Your task to perform on an android device: Search for Mexican restaurants on Maps Image 0: 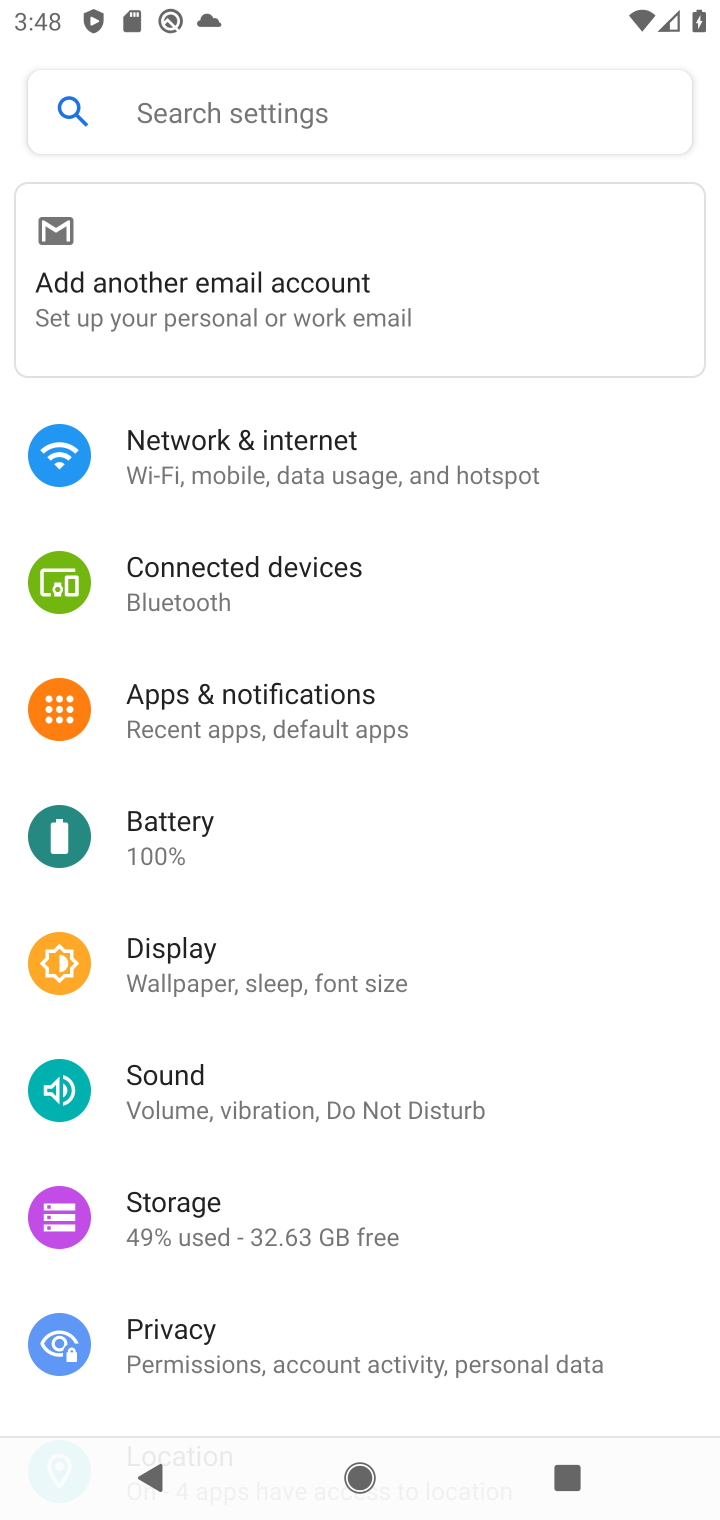
Step 0: press home button
Your task to perform on an android device: Search for Mexican restaurants on Maps Image 1: 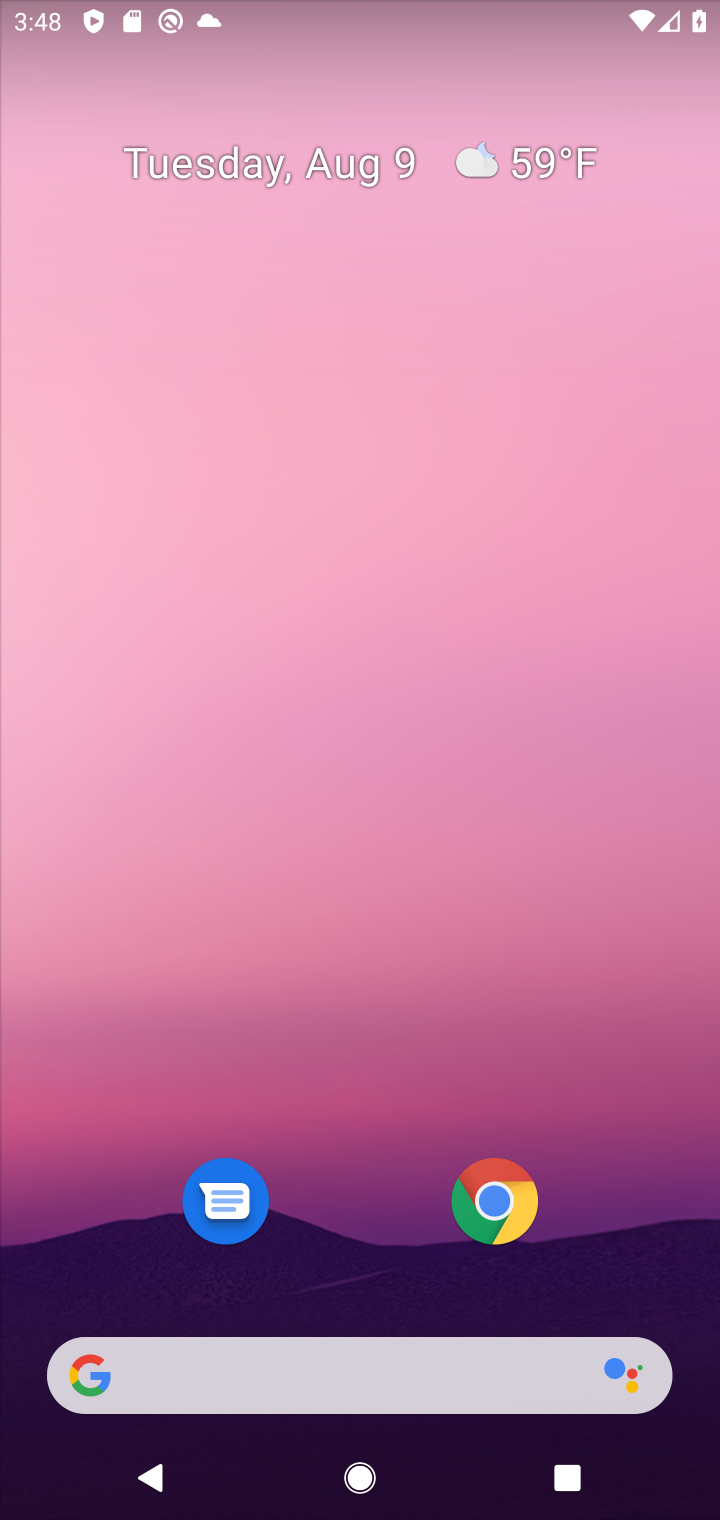
Step 1: drag from (350, 1195) to (516, 641)
Your task to perform on an android device: Search for Mexican restaurants on Maps Image 2: 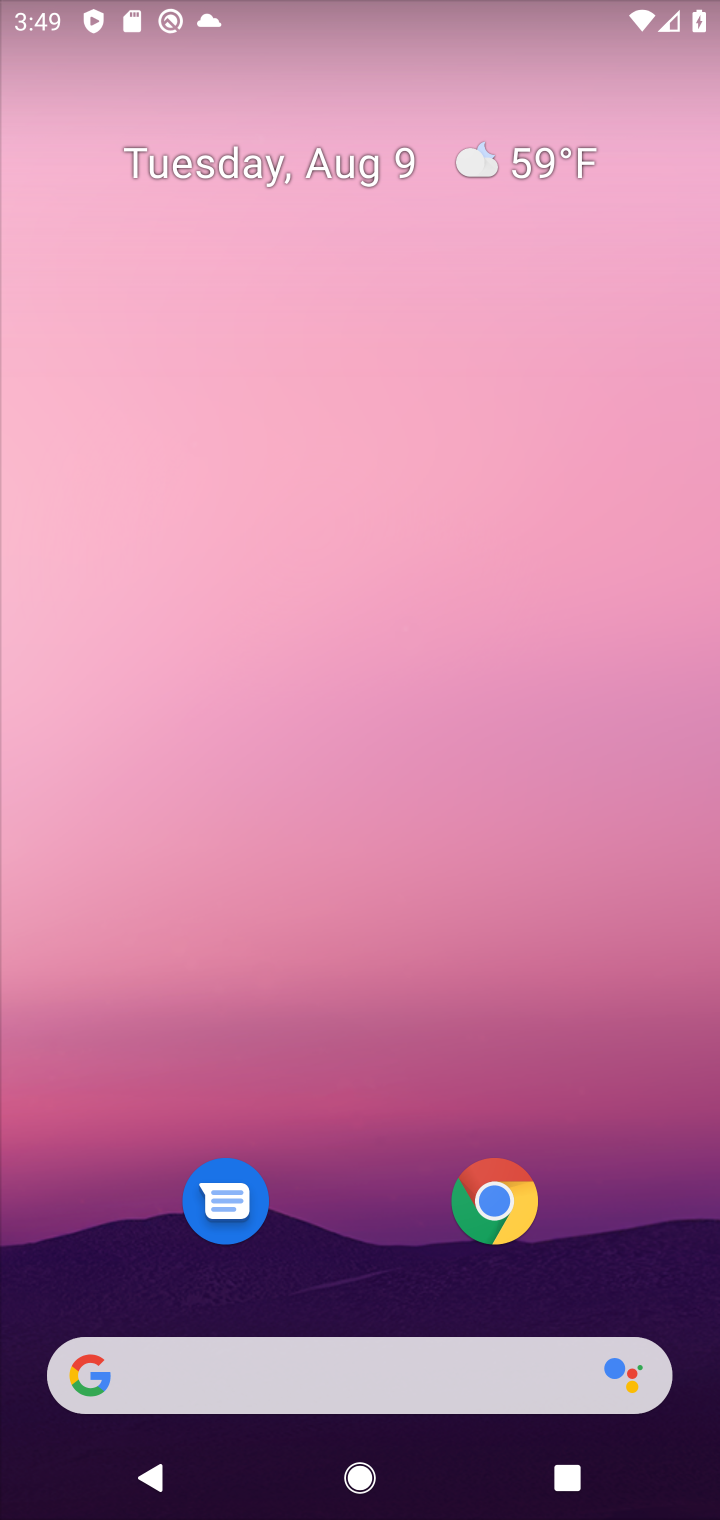
Step 2: drag from (37, 993) to (682, 1001)
Your task to perform on an android device: Search for Mexican restaurants on Maps Image 3: 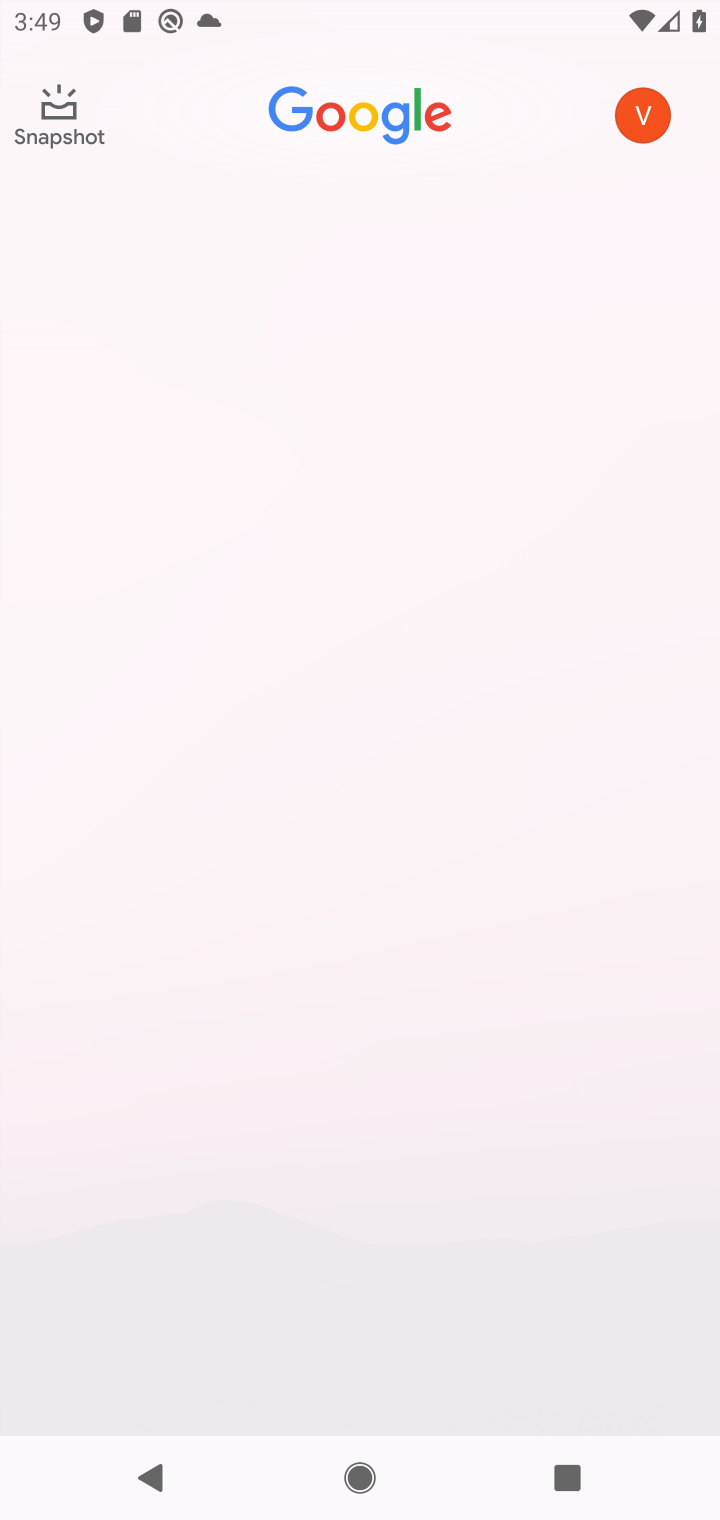
Step 3: click (682, 1001)
Your task to perform on an android device: Search for Mexican restaurants on Maps Image 4: 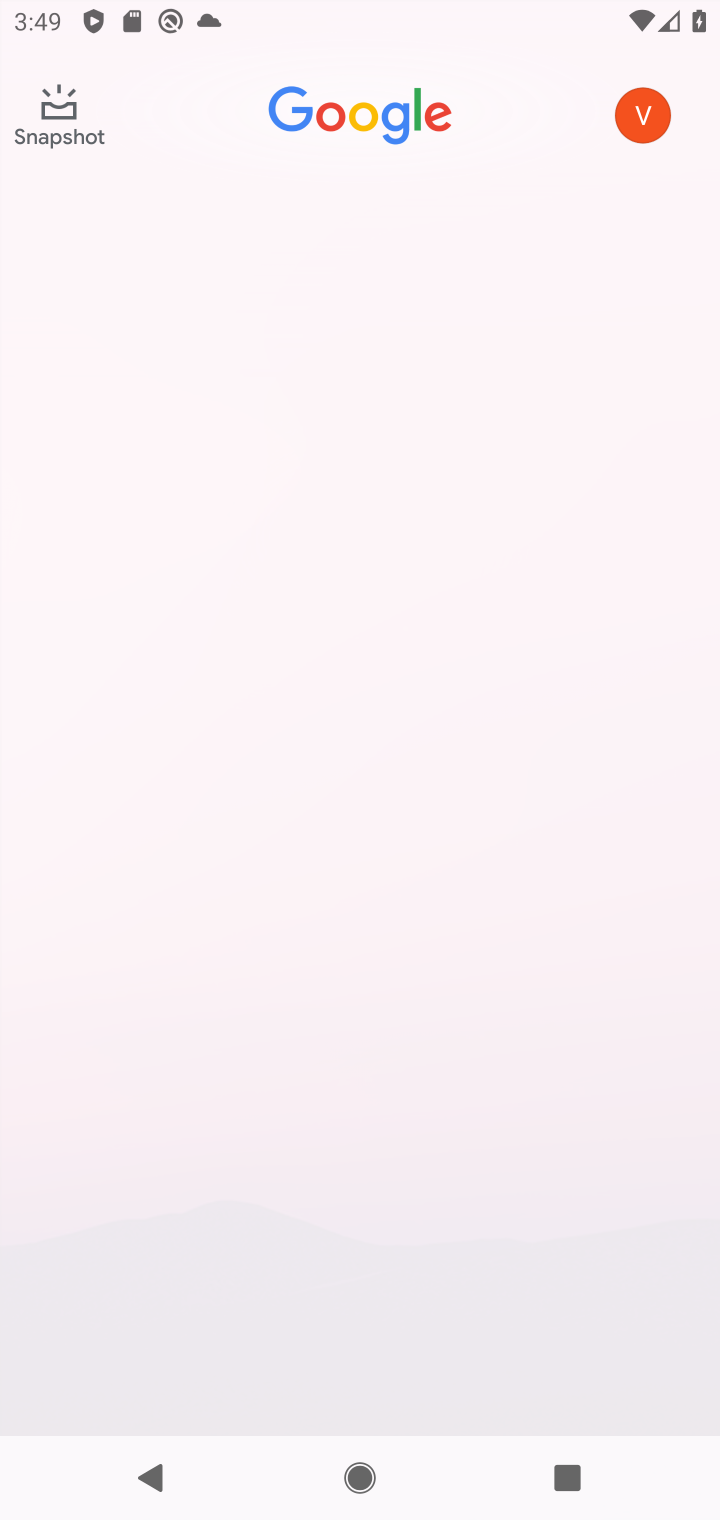
Step 4: click (101, 966)
Your task to perform on an android device: Search for Mexican restaurants on Maps Image 5: 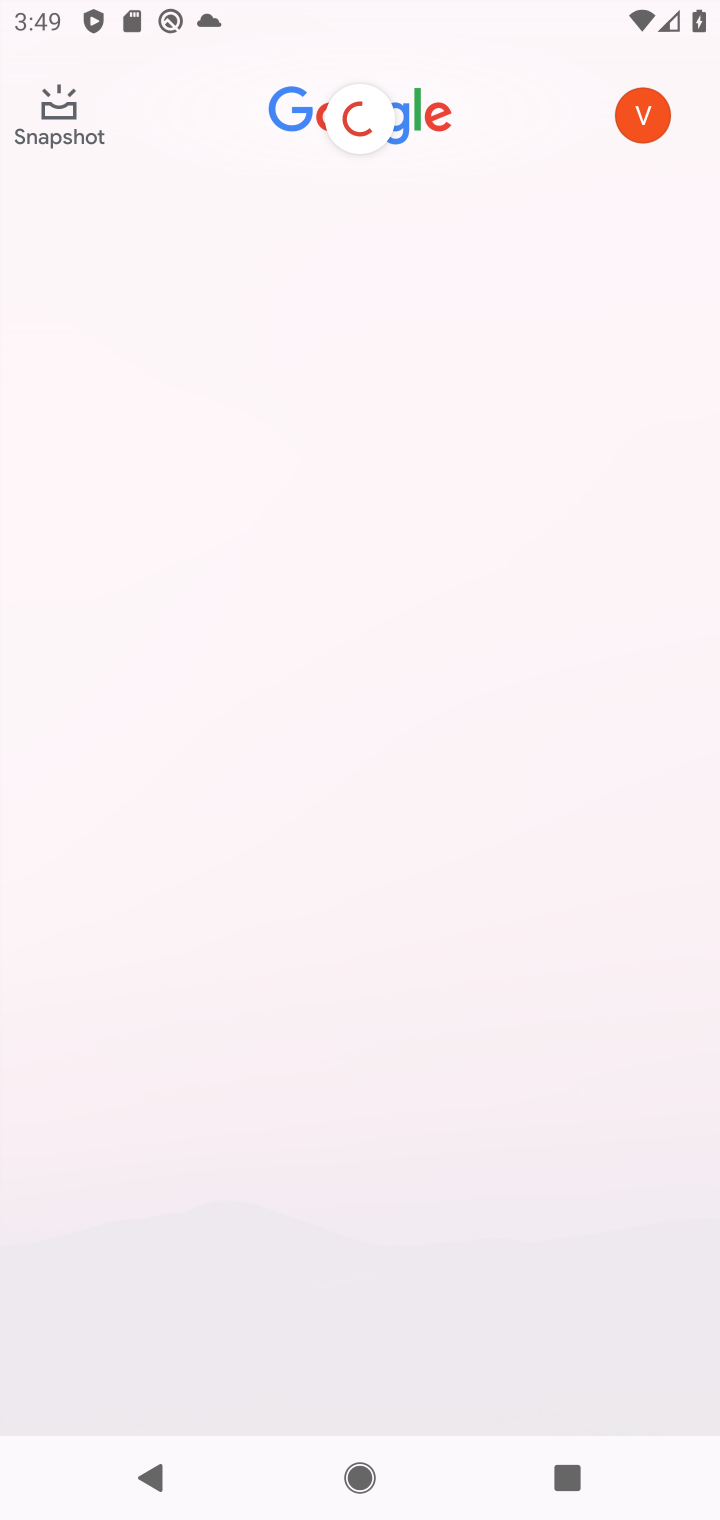
Step 5: drag from (413, 887) to (220, 860)
Your task to perform on an android device: Search for Mexican restaurants on Maps Image 6: 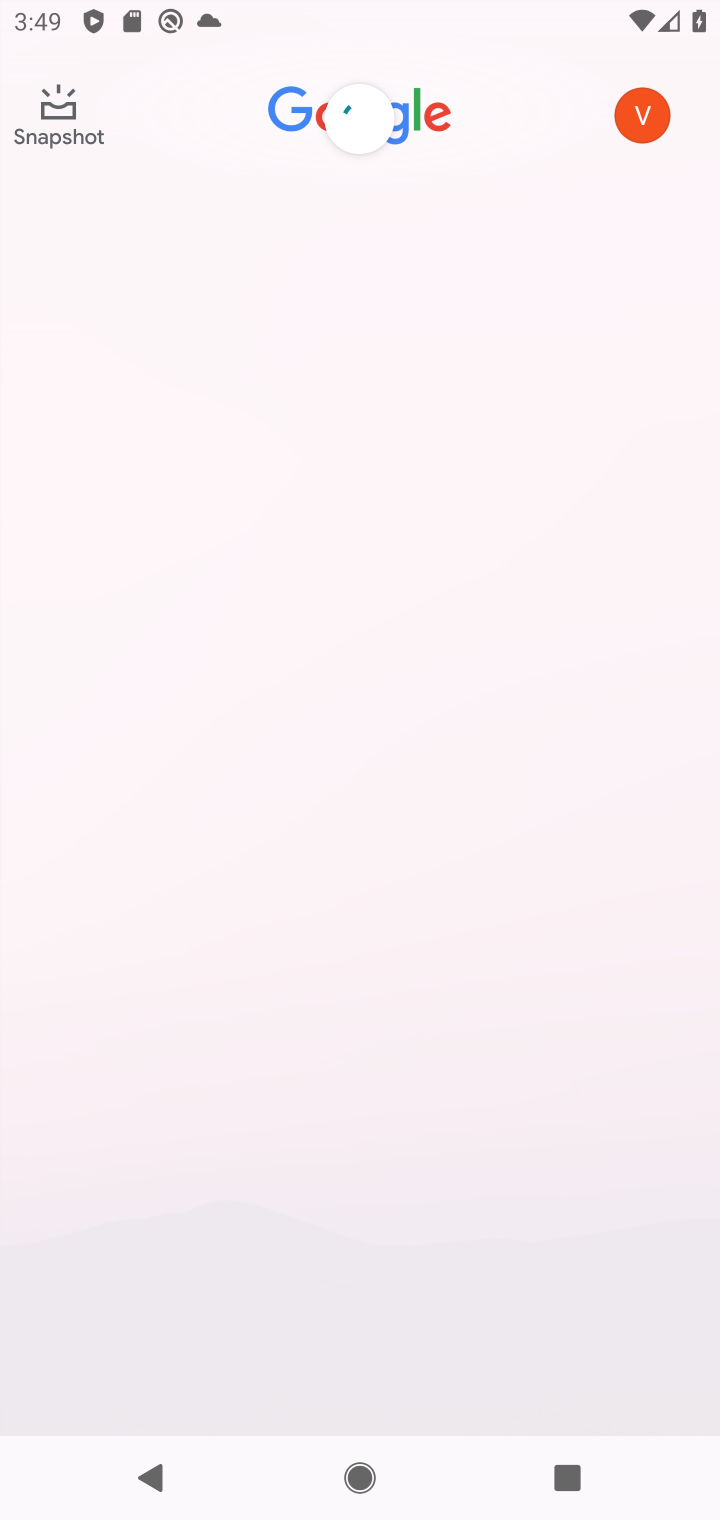
Step 6: press back button
Your task to perform on an android device: Search for Mexican restaurants on Maps Image 7: 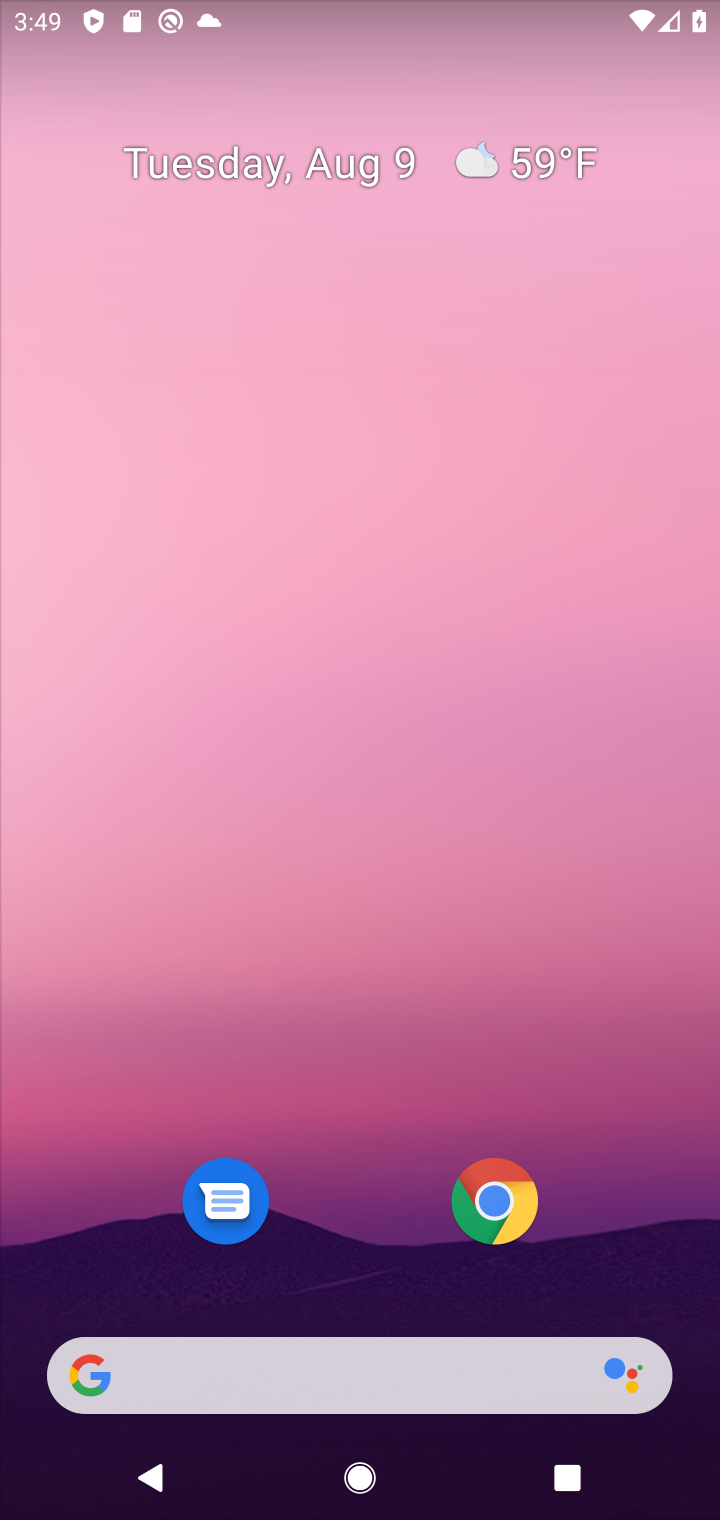
Step 7: drag from (428, 988) to (56, 540)
Your task to perform on an android device: Search for Mexican restaurants on Maps Image 8: 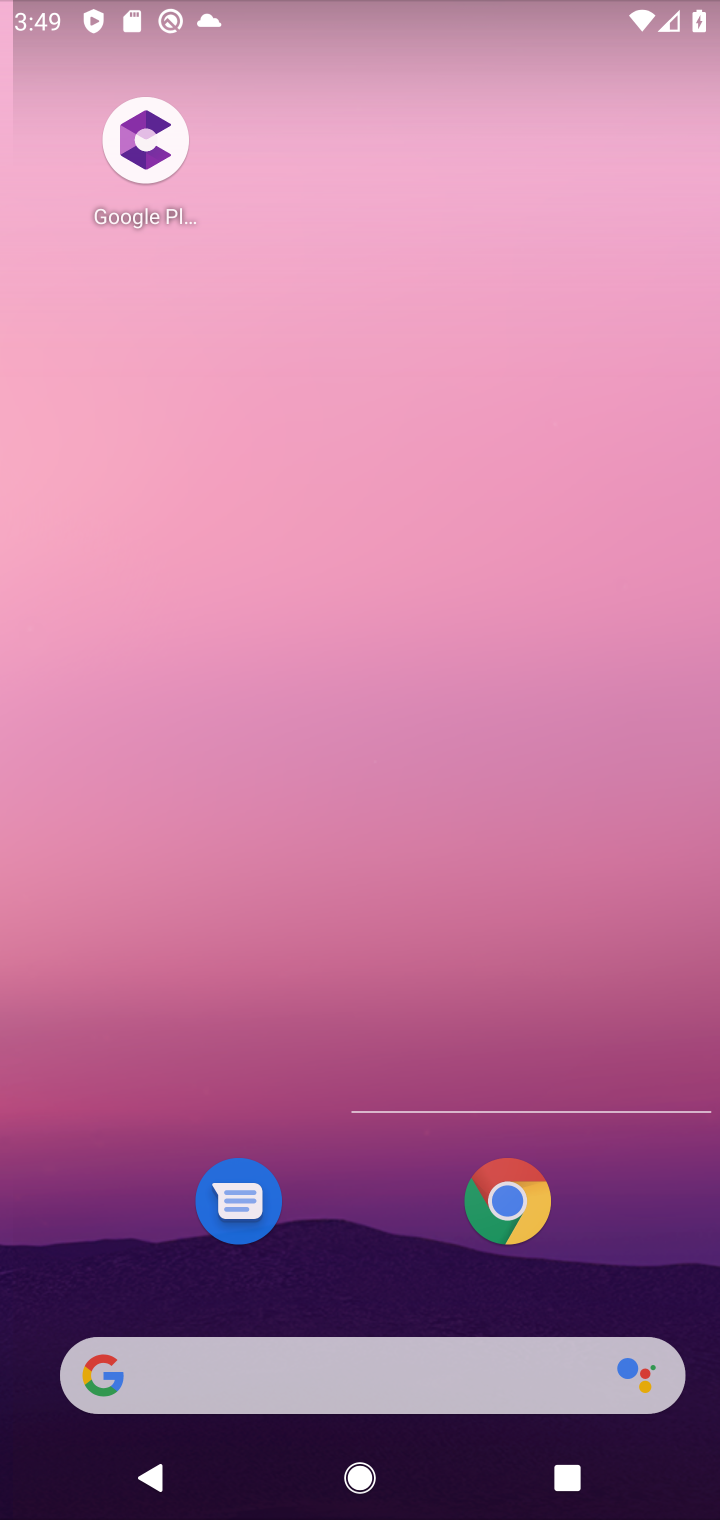
Step 8: drag from (673, 853) to (7, 607)
Your task to perform on an android device: Search for Mexican restaurants on Maps Image 9: 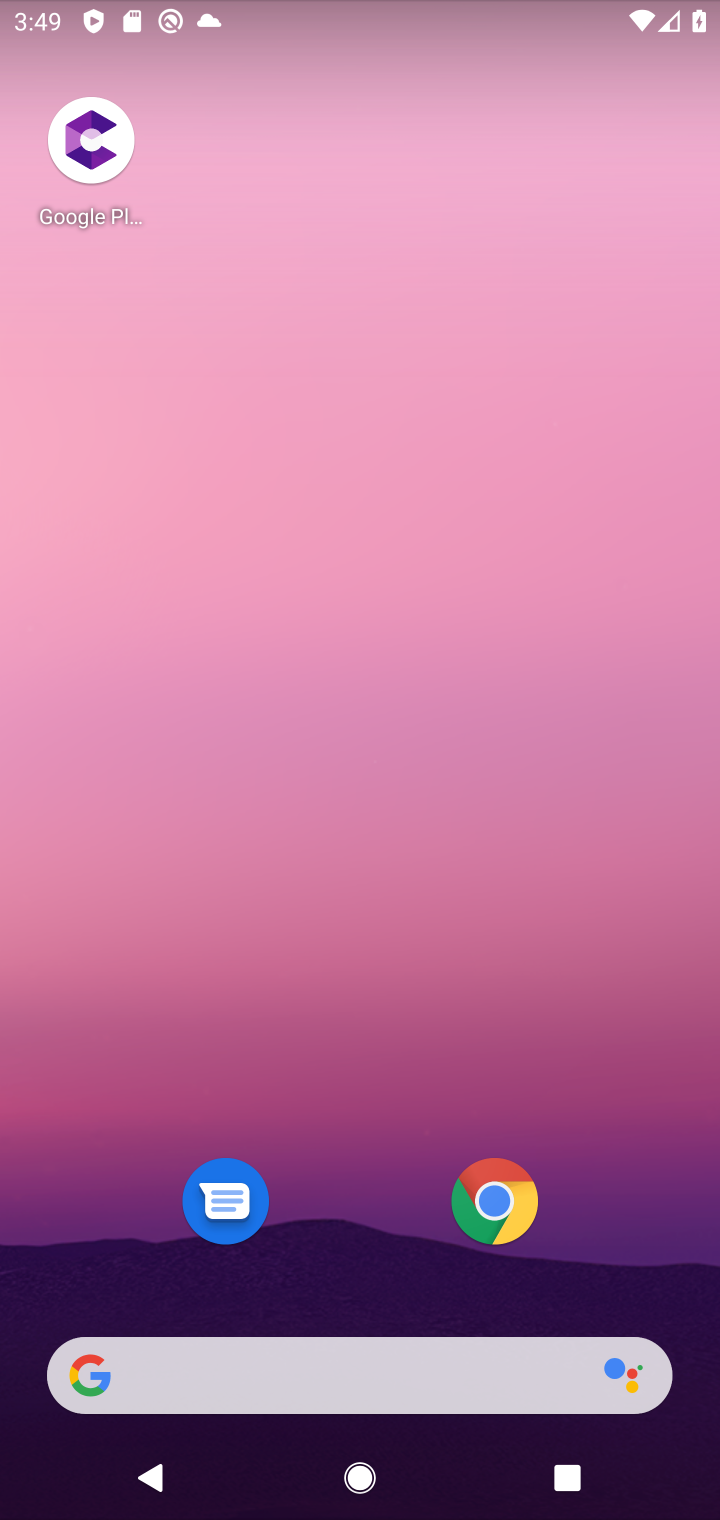
Step 9: drag from (387, 1295) to (191, 96)
Your task to perform on an android device: Search for Mexican restaurants on Maps Image 10: 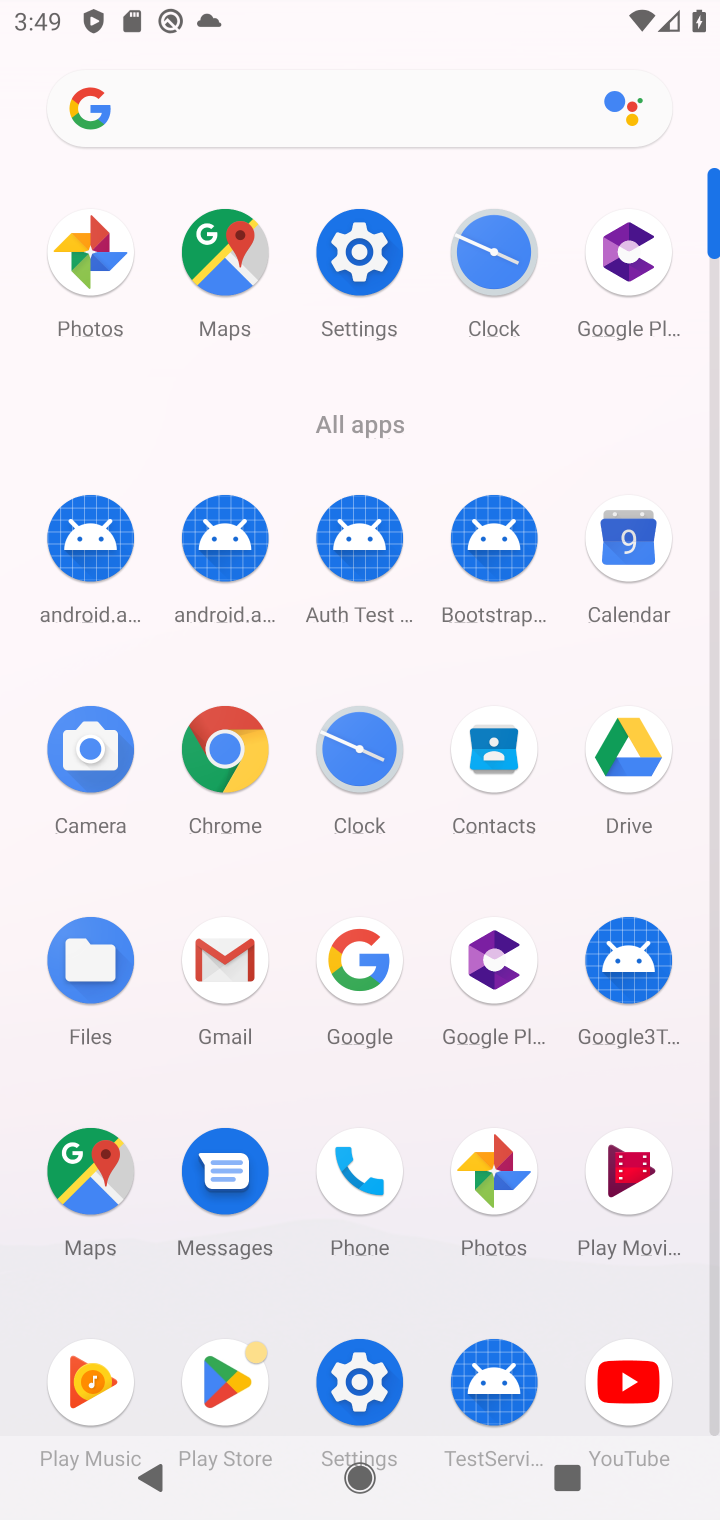
Step 10: click (210, 257)
Your task to perform on an android device: Search for Mexican restaurants on Maps Image 11: 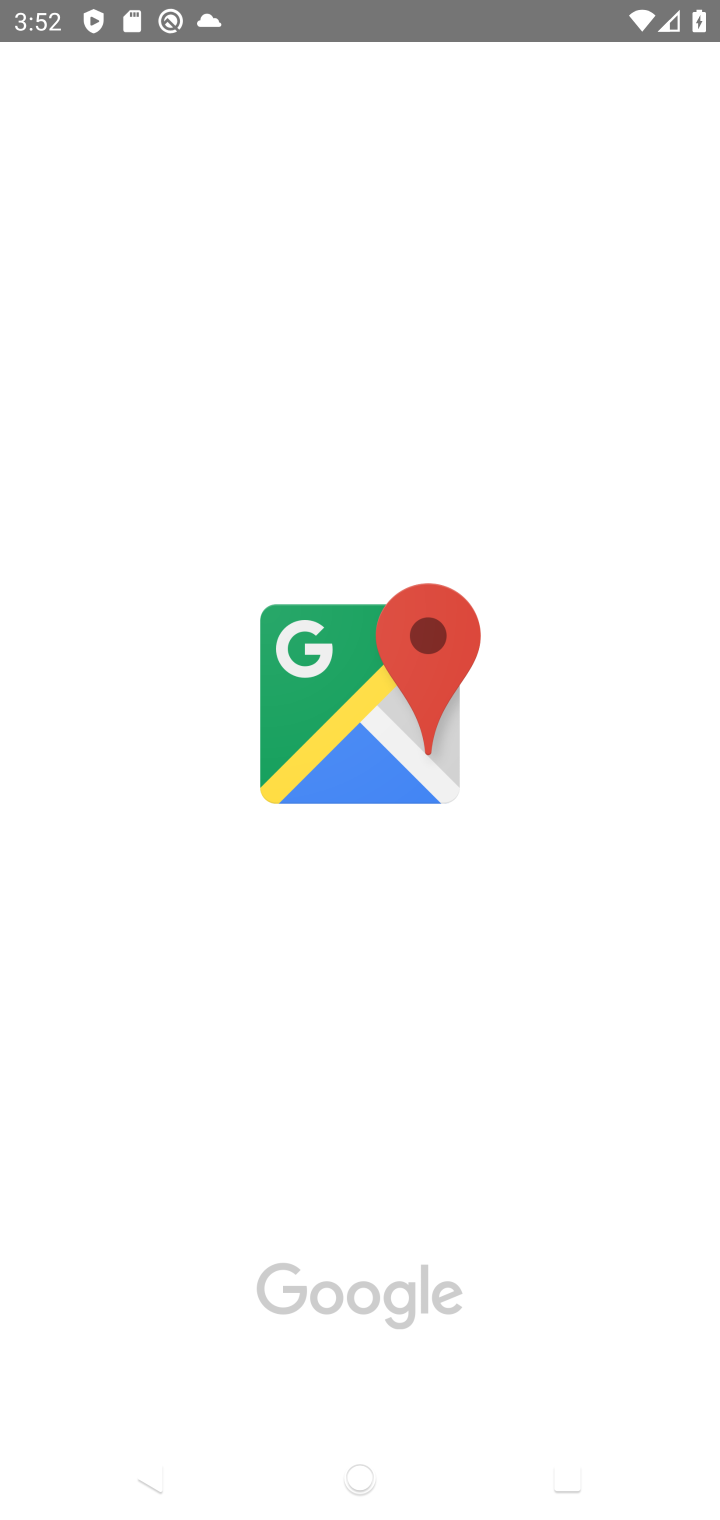
Step 11: task complete